Your task to perform on an android device: set default search engine in the chrome app Image 0: 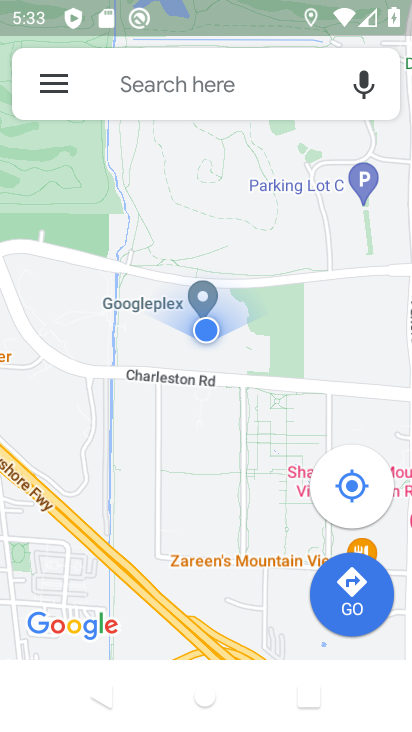
Step 0: press home button
Your task to perform on an android device: set default search engine in the chrome app Image 1: 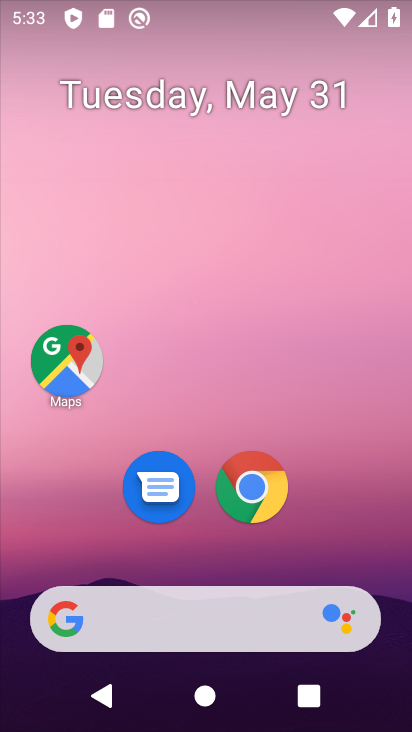
Step 1: click (258, 486)
Your task to perform on an android device: set default search engine in the chrome app Image 2: 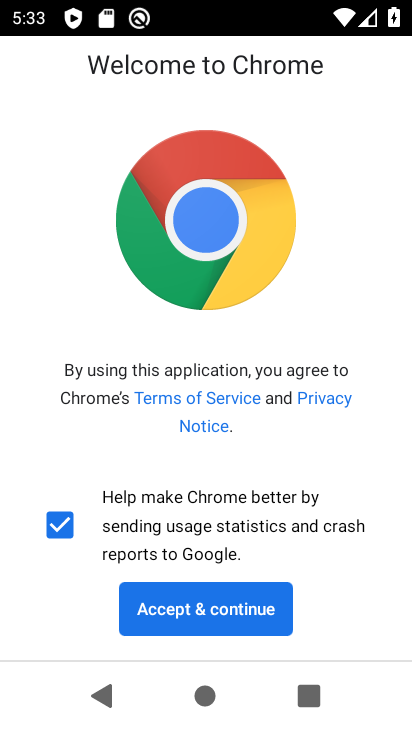
Step 2: click (193, 606)
Your task to perform on an android device: set default search engine in the chrome app Image 3: 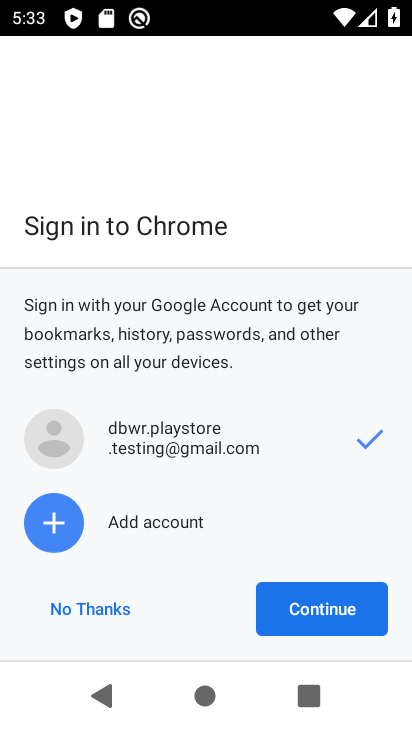
Step 3: click (274, 603)
Your task to perform on an android device: set default search engine in the chrome app Image 4: 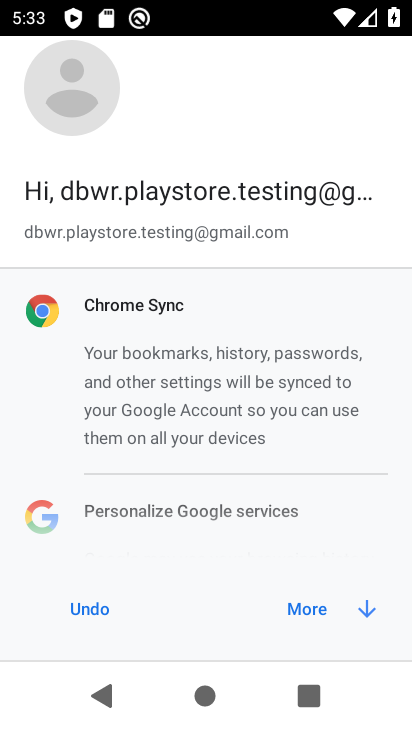
Step 4: click (363, 613)
Your task to perform on an android device: set default search engine in the chrome app Image 5: 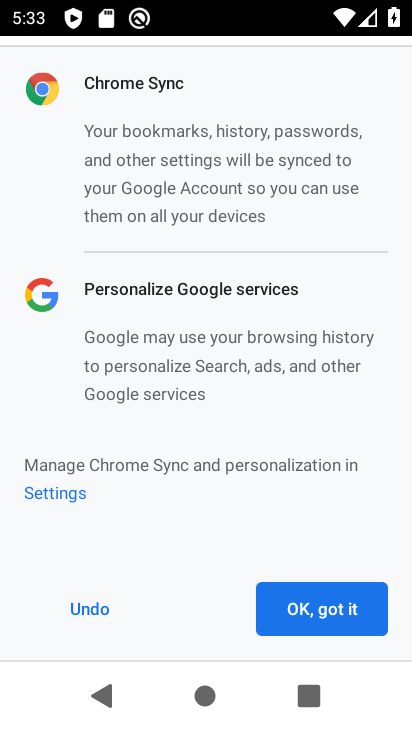
Step 5: click (327, 609)
Your task to perform on an android device: set default search engine in the chrome app Image 6: 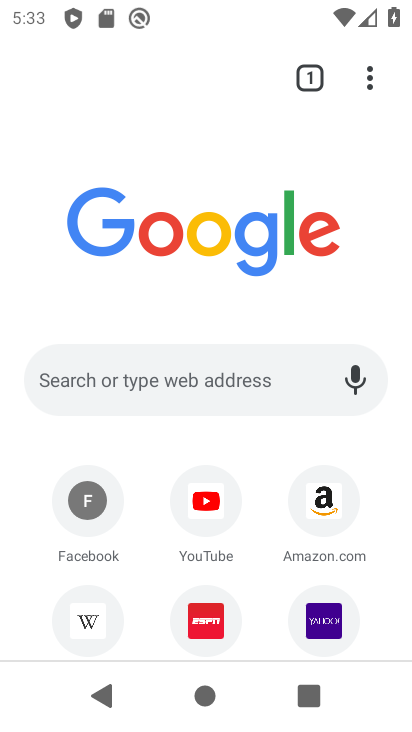
Step 6: click (367, 74)
Your task to perform on an android device: set default search engine in the chrome app Image 7: 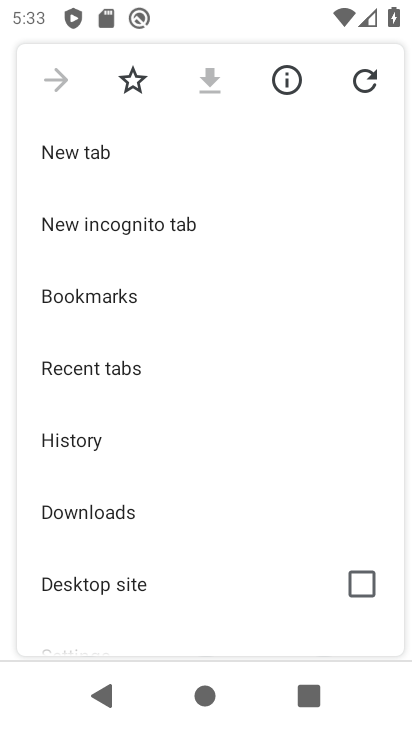
Step 7: drag from (214, 568) to (209, 251)
Your task to perform on an android device: set default search engine in the chrome app Image 8: 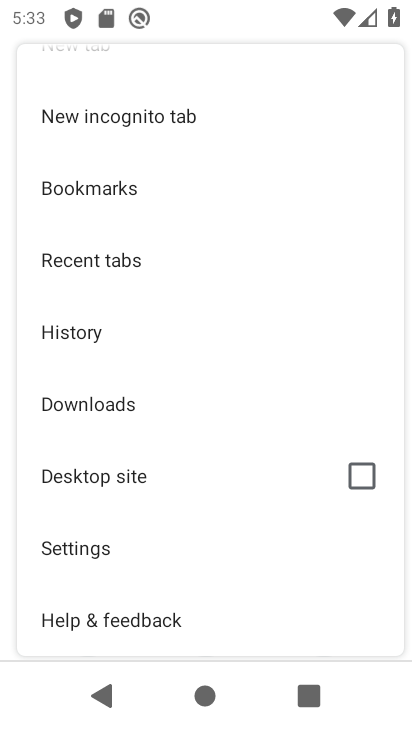
Step 8: click (84, 547)
Your task to perform on an android device: set default search engine in the chrome app Image 9: 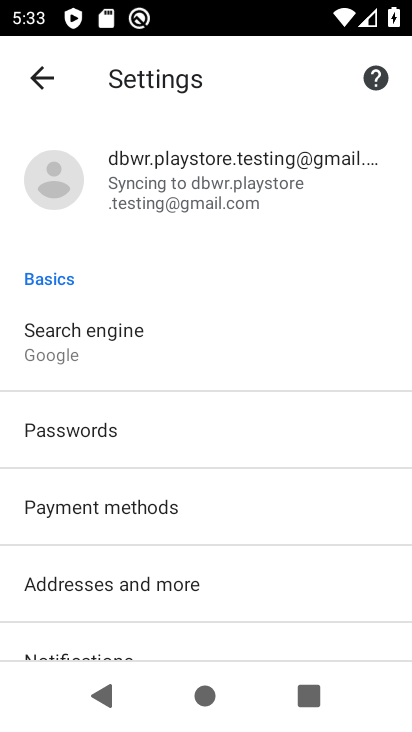
Step 9: click (59, 334)
Your task to perform on an android device: set default search engine in the chrome app Image 10: 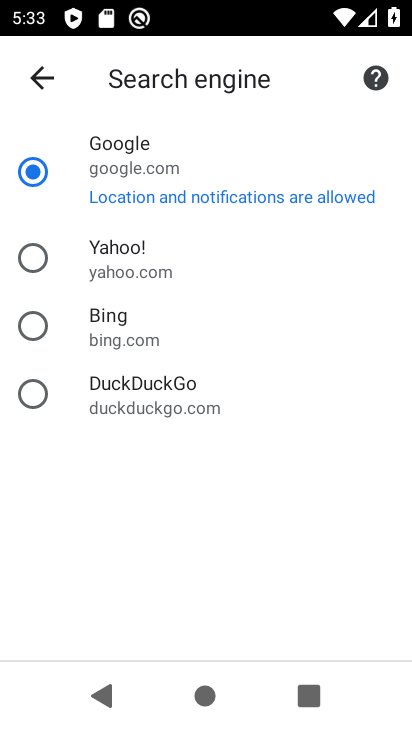
Step 10: click (36, 178)
Your task to perform on an android device: set default search engine in the chrome app Image 11: 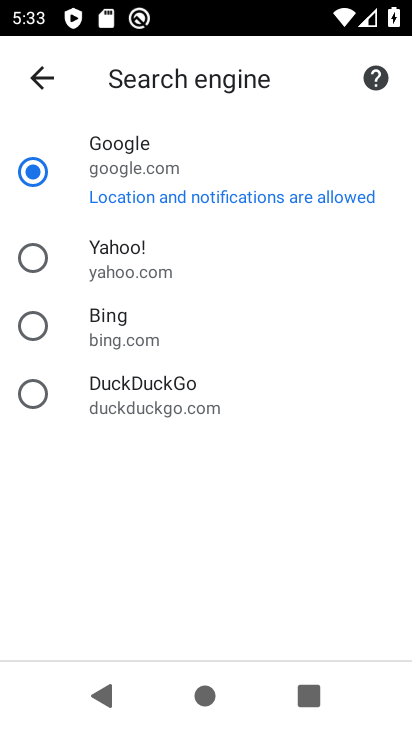
Step 11: task complete